Your task to perform on an android device: Open the calendar and show me this week's events? Image 0: 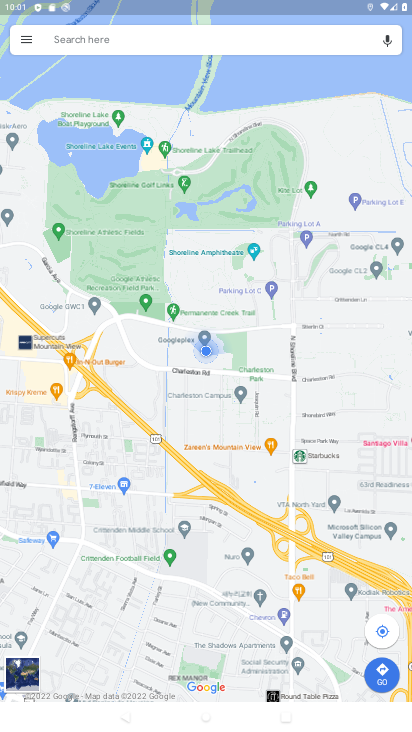
Step 0: task complete